Your task to perform on an android device: Search for the best coffee tables on Crate & Barrel Image 0: 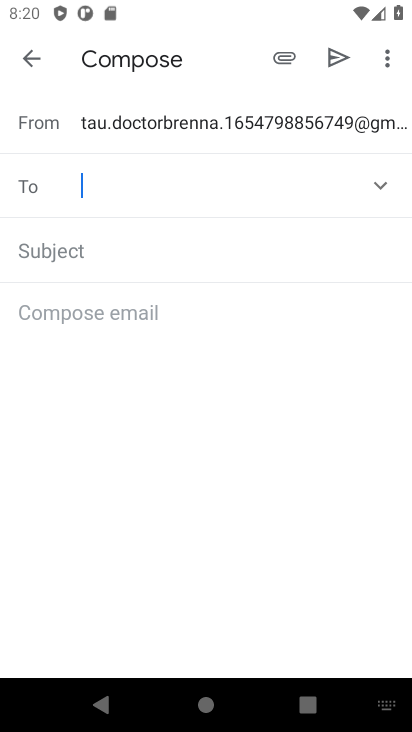
Step 0: press home button
Your task to perform on an android device: Search for the best coffee tables on Crate & Barrel Image 1: 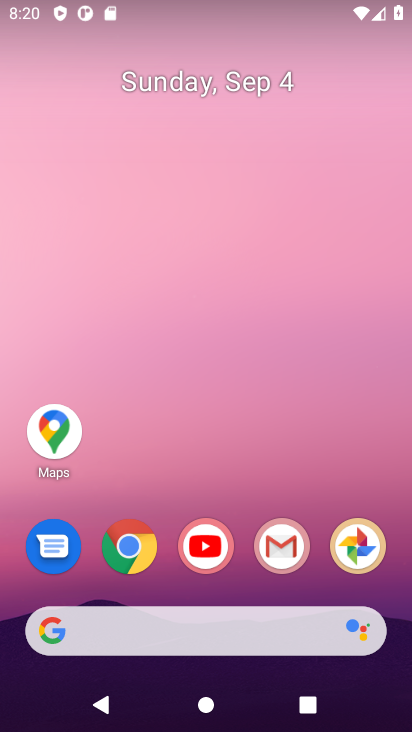
Step 1: click (142, 546)
Your task to perform on an android device: Search for the best coffee tables on Crate & Barrel Image 2: 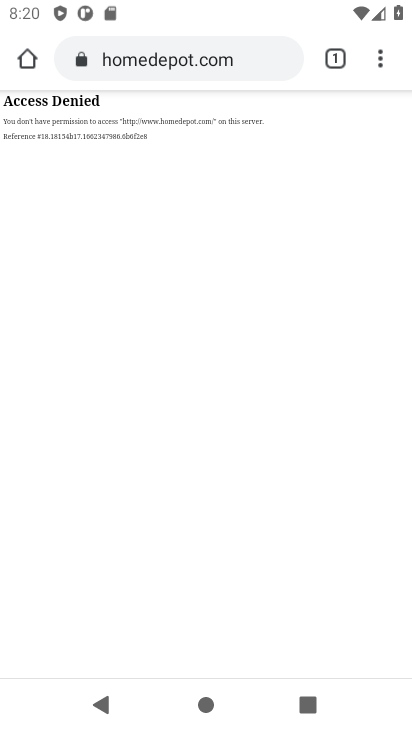
Step 2: click (158, 66)
Your task to perform on an android device: Search for the best coffee tables on Crate & Barrel Image 3: 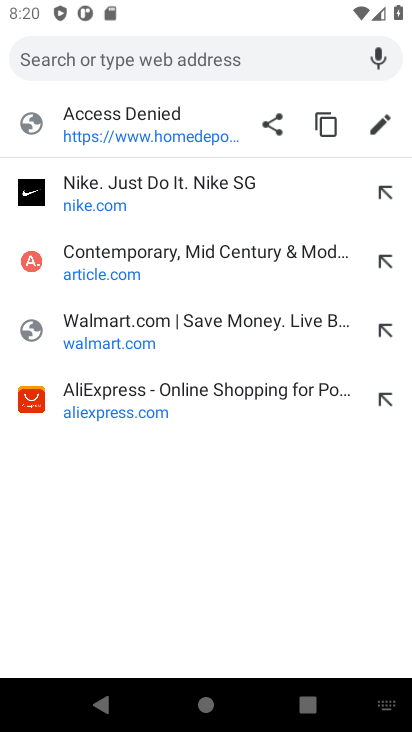
Step 3: type "Crate & Barrel"
Your task to perform on an android device: Search for the best coffee tables on Crate & Barrel Image 4: 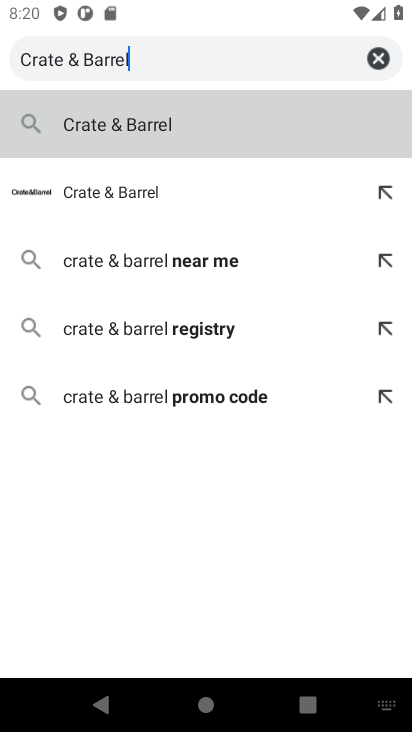
Step 4: click (99, 135)
Your task to perform on an android device: Search for the best coffee tables on Crate & Barrel Image 5: 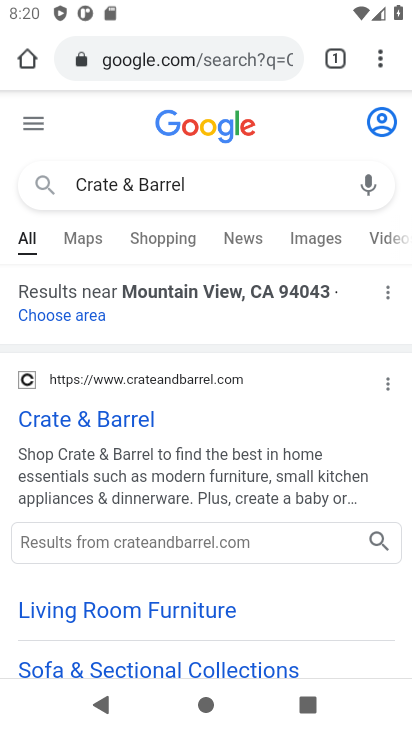
Step 5: click (99, 426)
Your task to perform on an android device: Search for the best coffee tables on Crate & Barrel Image 6: 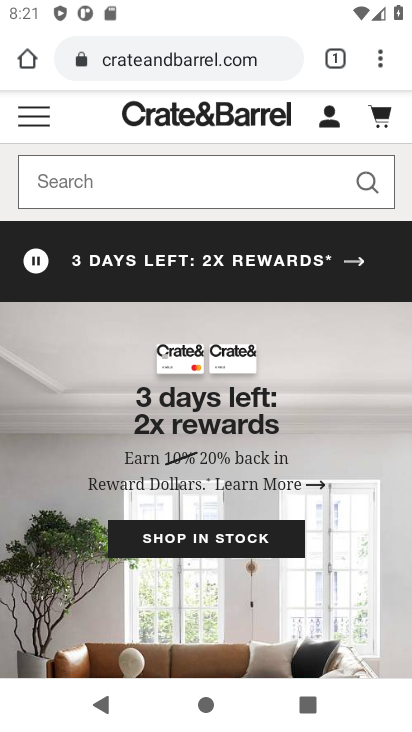
Step 6: click (187, 170)
Your task to perform on an android device: Search for the best coffee tables on Crate & Barrel Image 7: 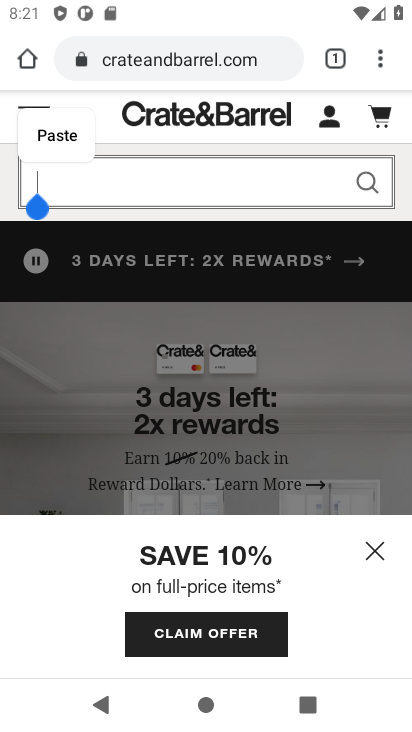
Step 7: type "best coffee tables"
Your task to perform on an android device: Search for the best coffee tables on Crate & Barrel Image 8: 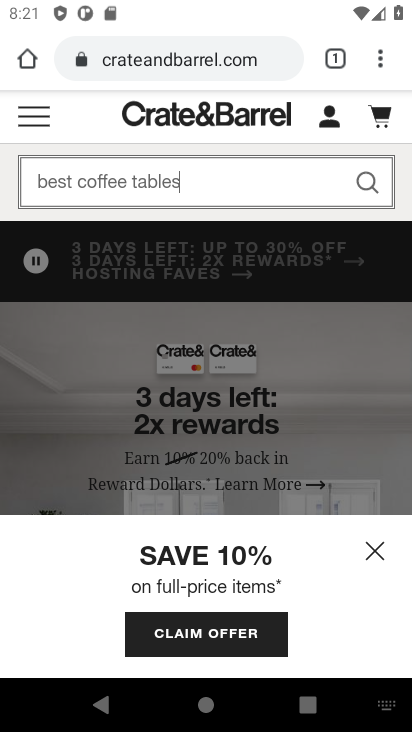
Step 8: click (368, 183)
Your task to perform on an android device: Search for the best coffee tables on Crate & Barrel Image 9: 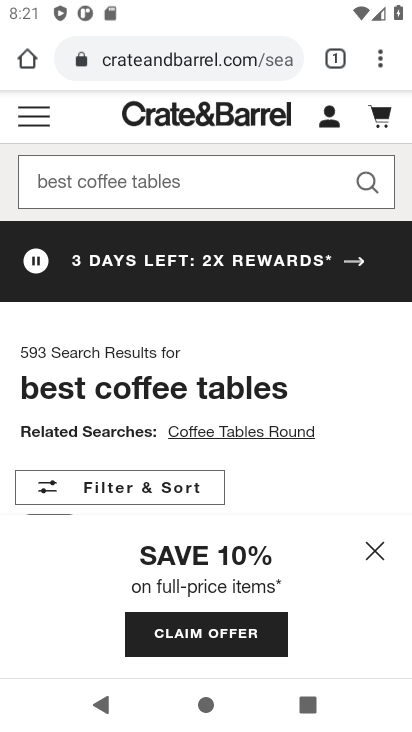
Step 9: task complete